Your task to perform on an android device: turn off airplane mode Image 0: 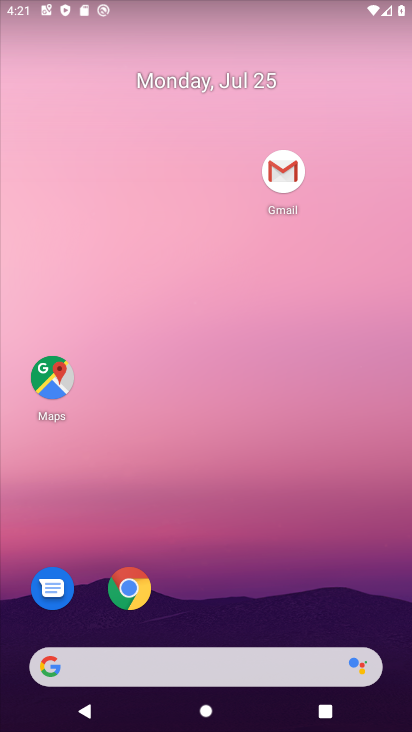
Step 0: drag from (262, 361) to (265, 92)
Your task to perform on an android device: turn off airplane mode Image 1: 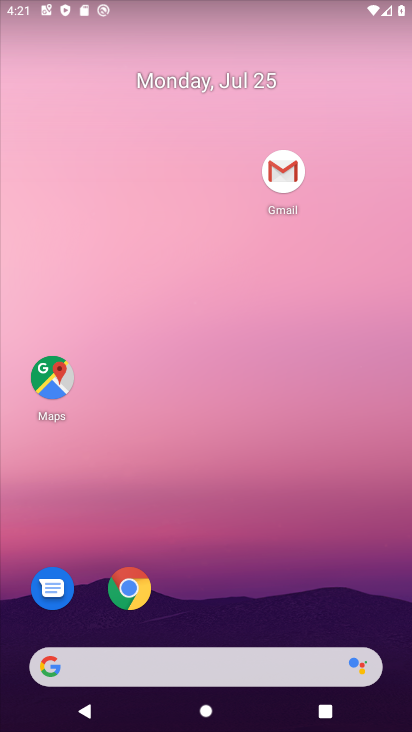
Step 1: drag from (286, 541) to (305, 62)
Your task to perform on an android device: turn off airplane mode Image 2: 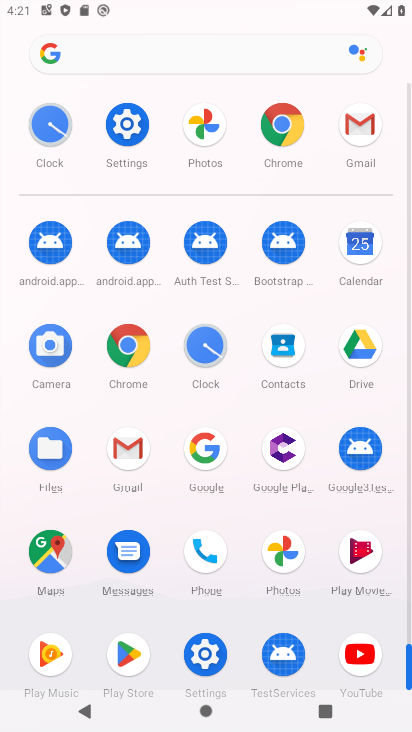
Step 2: click (112, 122)
Your task to perform on an android device: turn off airplane mode Image 3: 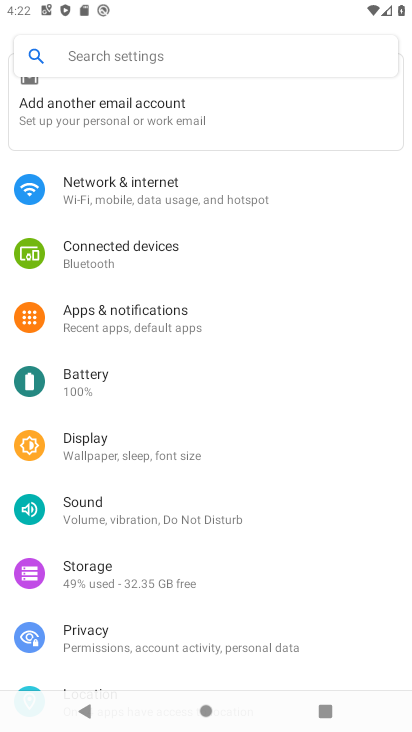
Step 3: click (164, 180)
Your task to perform on an android device: turn off airplane mode Image 4: 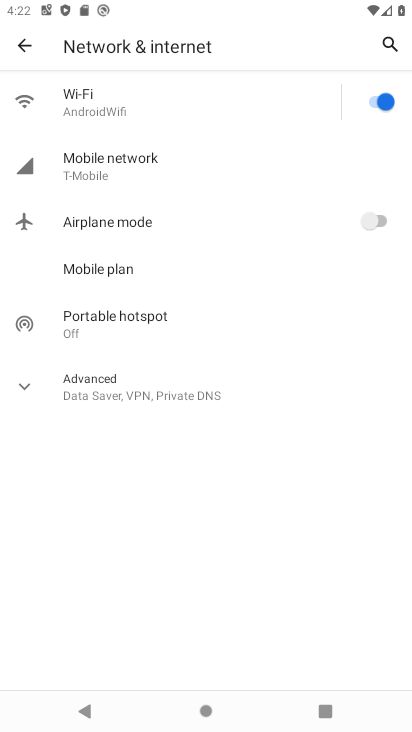
Step 4: task complete